Your task to perform on an android device: What's on my calendar today? Image 0: 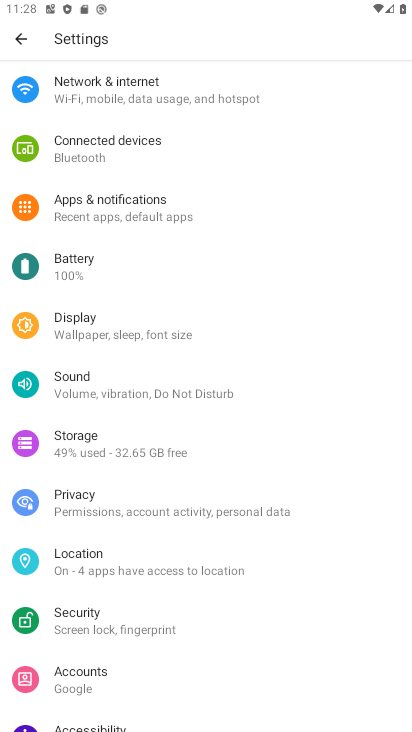
Step 0: press home button
Your task to perform on an android device: What's on my calendar today? Image 1: 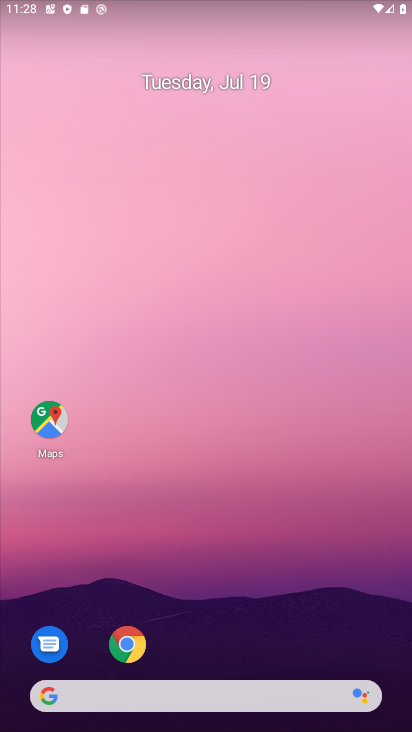
Step 1: drag from (276, 597) to (143, 38)
Your task to perform on an android device: What's on my calendar today? Image 2: 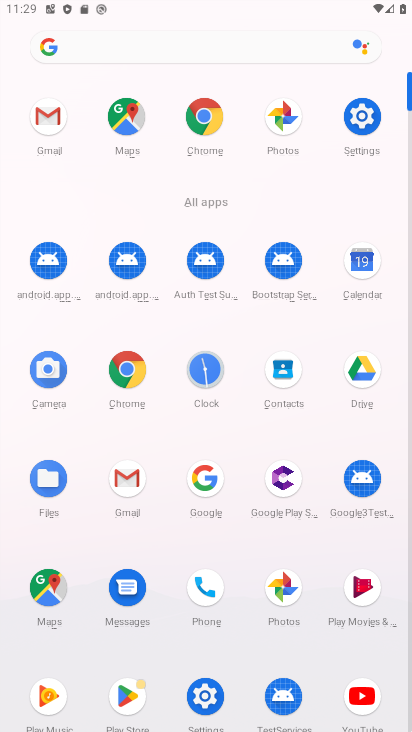
Step 2: click (355, 249)
Your task to perform on an android device: What's on my calendar today? Image 3: 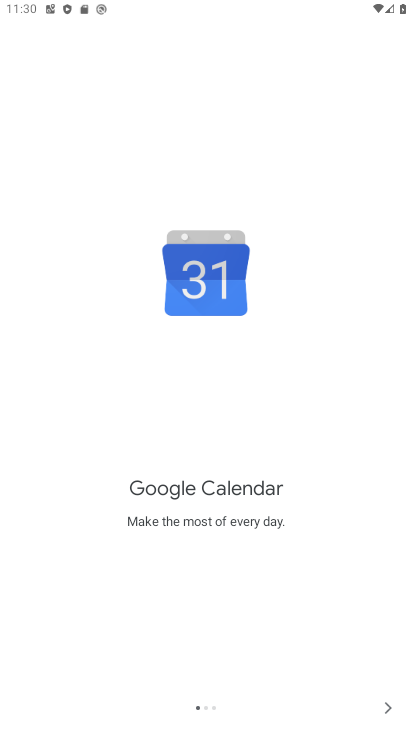
Step 3: click (380, 702)
Your task to perform on an android device: What's on my calendar today? Image 4: 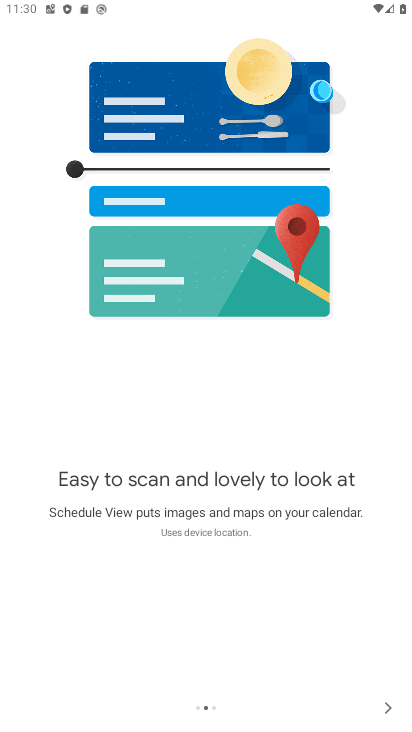
Step 4: click (380, 705)
Your task to perform on an android device: What's on my calendar today? Image 5: 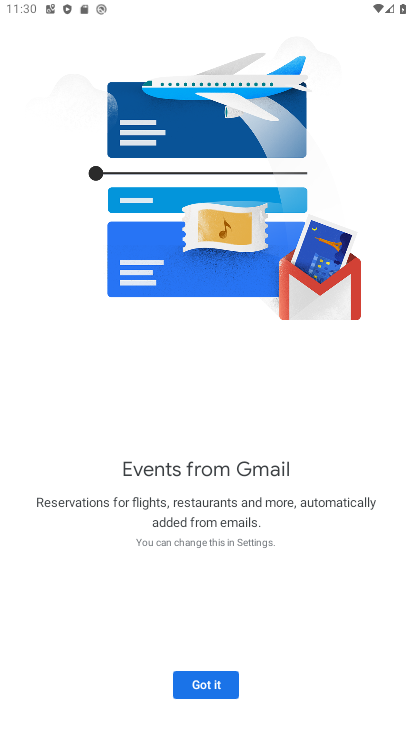
Step 5: click (209, 692)
Your task to perform on an android device: What's on my calendar today? Image 6: 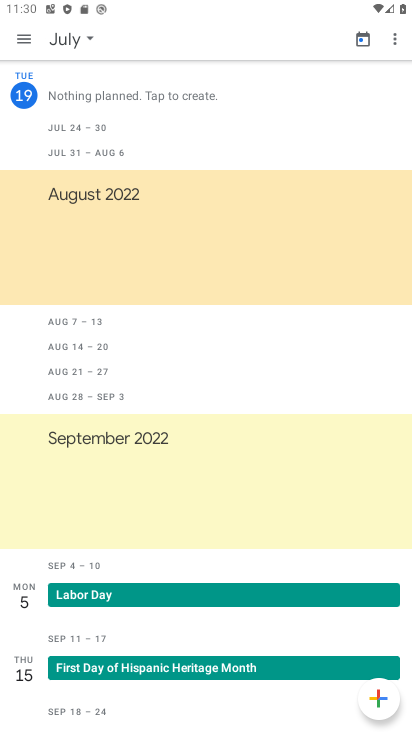
Step 6: click (91, 45)
Your task to perform on an android device: What's on my calendar today? Image 7: 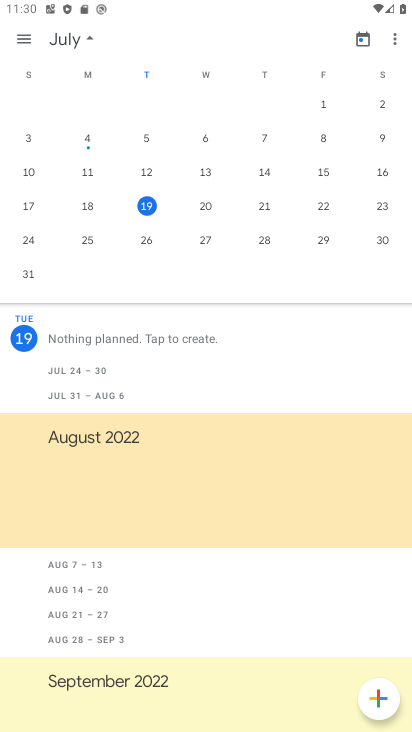
Step 7: click (199, 195)
Your task to perform on an android device: What's on my calendar today? Image 8: 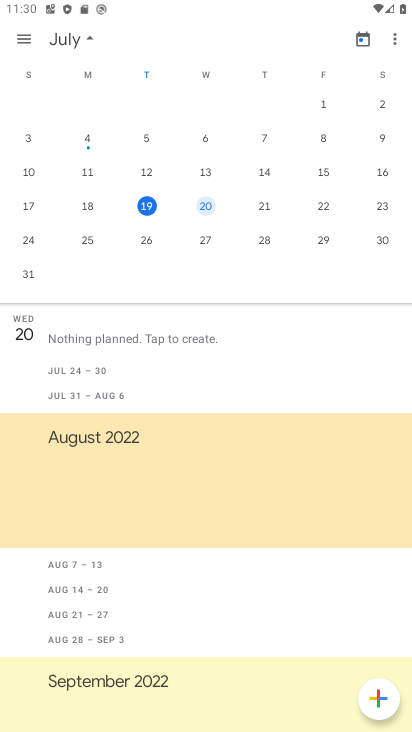
Step 8: task complete